Your task to perform on an android device: check out phone information Image 0: 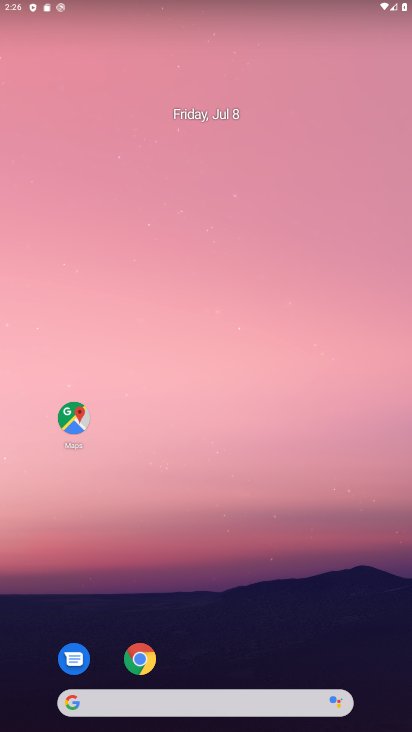
Step 0: press home button
Your task to perform on an android device: check out phone information Image 1: 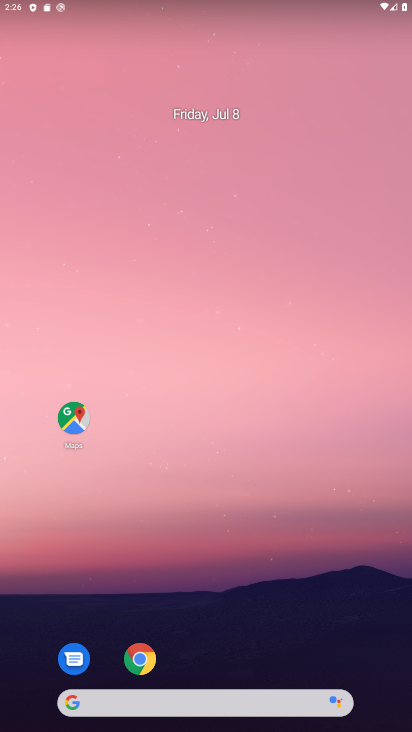
Step 1: drag from (205, 667) to (230, 10)
Your task to perform on an android device: check out phone information Image 2: 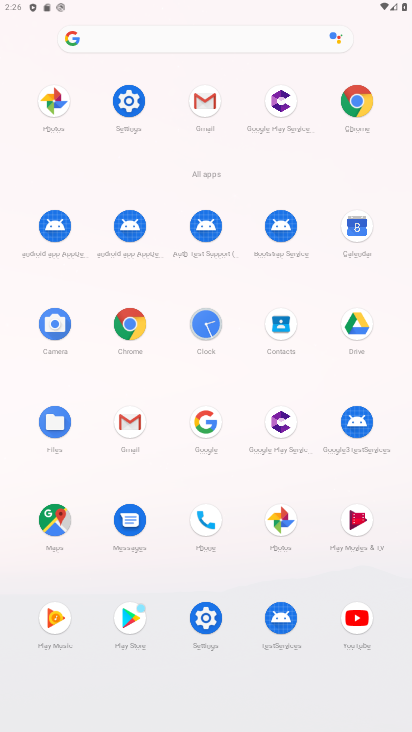
Step 2: click (130, 94)
Your task to perform on an android device: check out phone information Image 3: 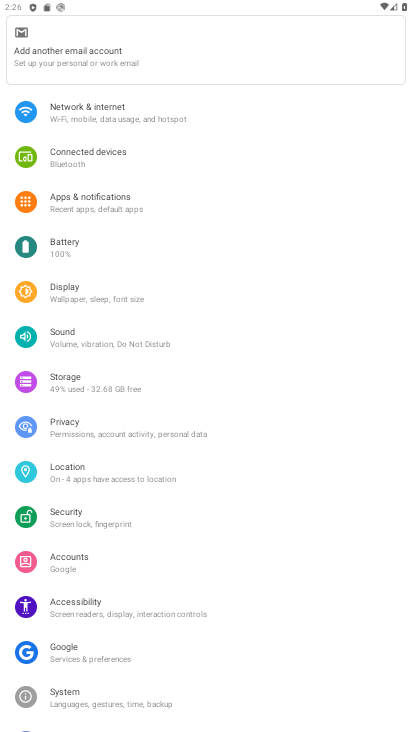
Step 3: drag from (153, 690) to (202, 209)
Your task to perform on an android device: check out phone information Image 4: 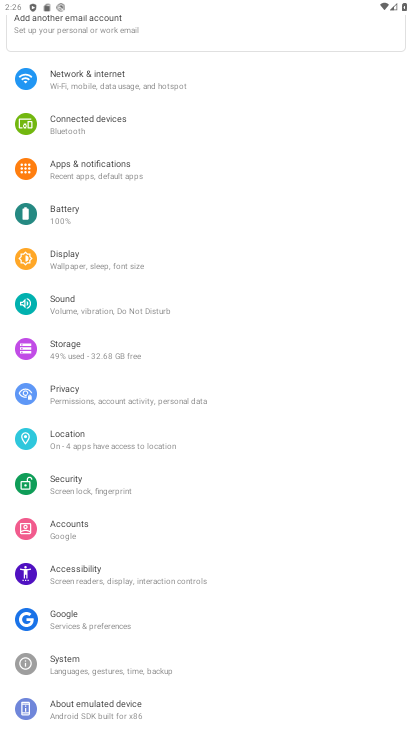
Step 4: click (149, 706)
Your task to perform on an android device: check out phone information Image 5: 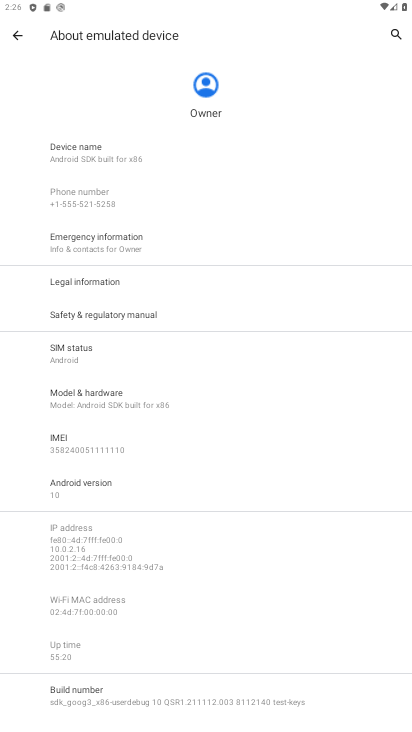
Step 5: task complete